Your task to perform on an android device: Find coffee shops on Maps Image 0: 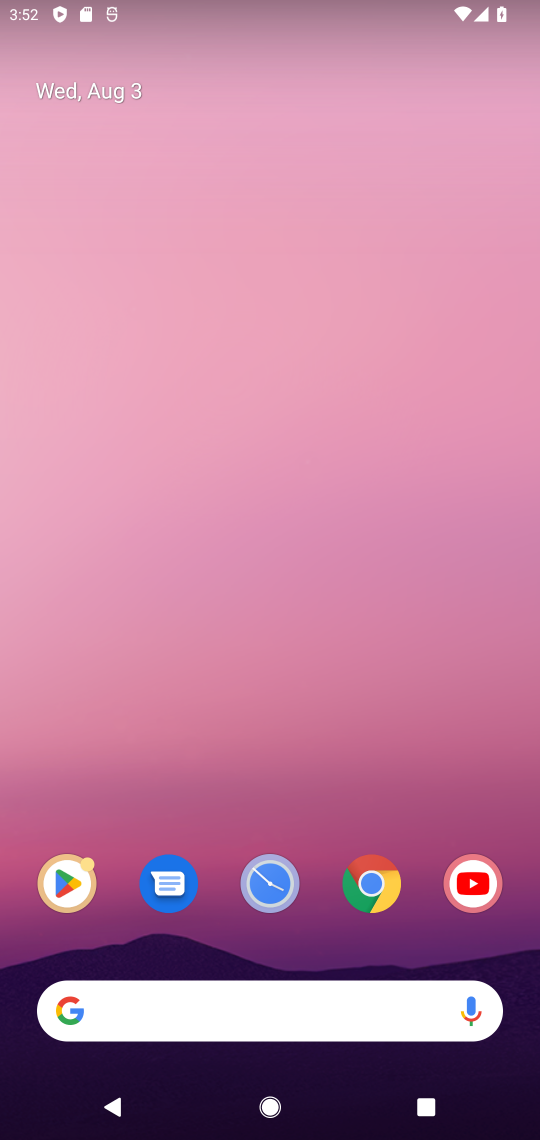
Step 0: drag from (258, 939) to (343, 21)
Your task to perform on an android device: Find coffee shops on Maps Image 1: 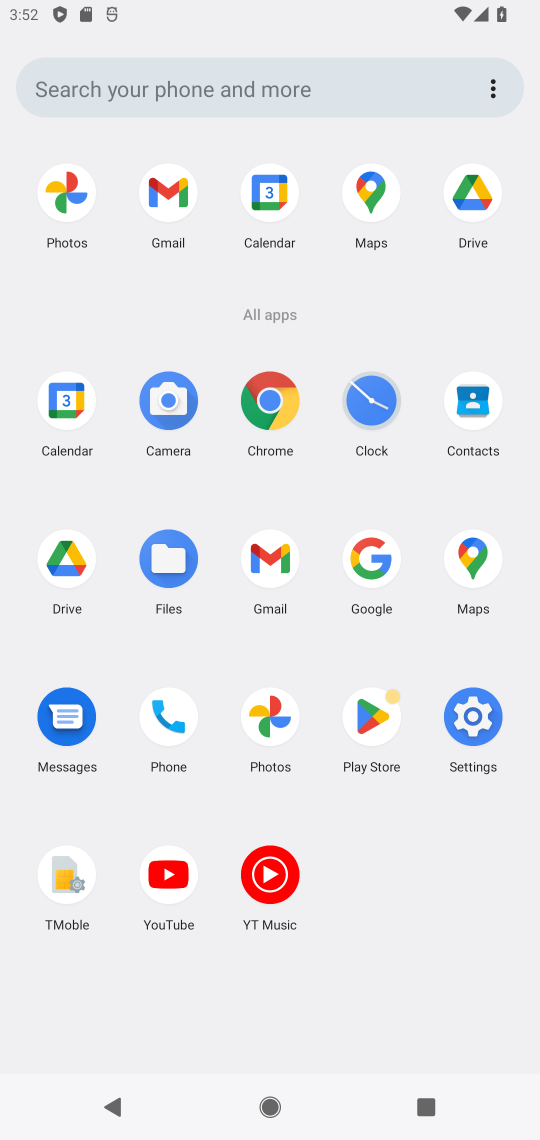
Step 1: click (471, 586)
Your task to perform on an android device: Find coffee shops on Maps Image 2: 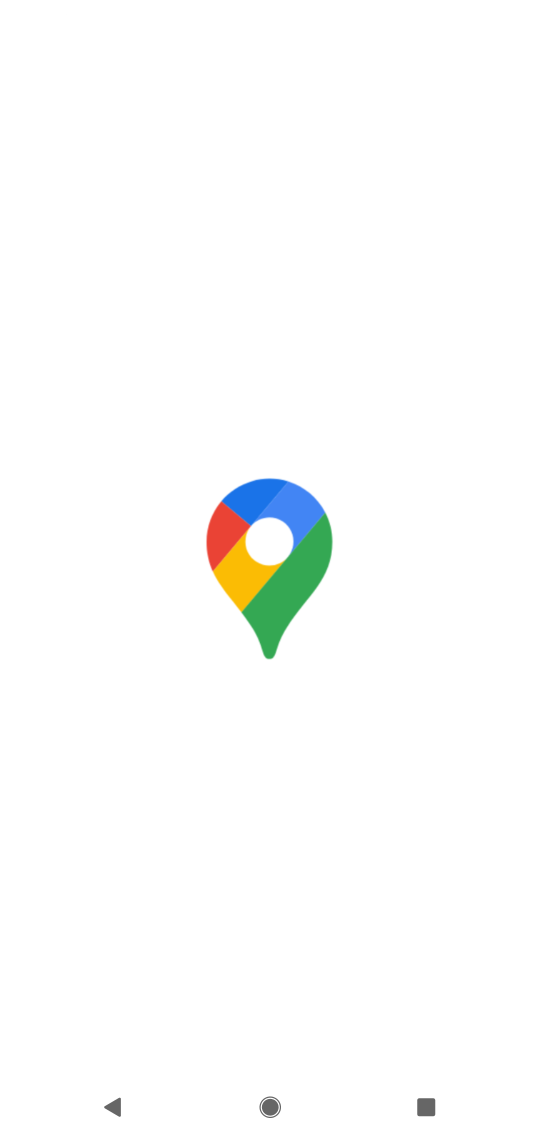
Step 2: click (301, 602)
Your task to perform on an android device: Find coffee shops on Maps Image 3: 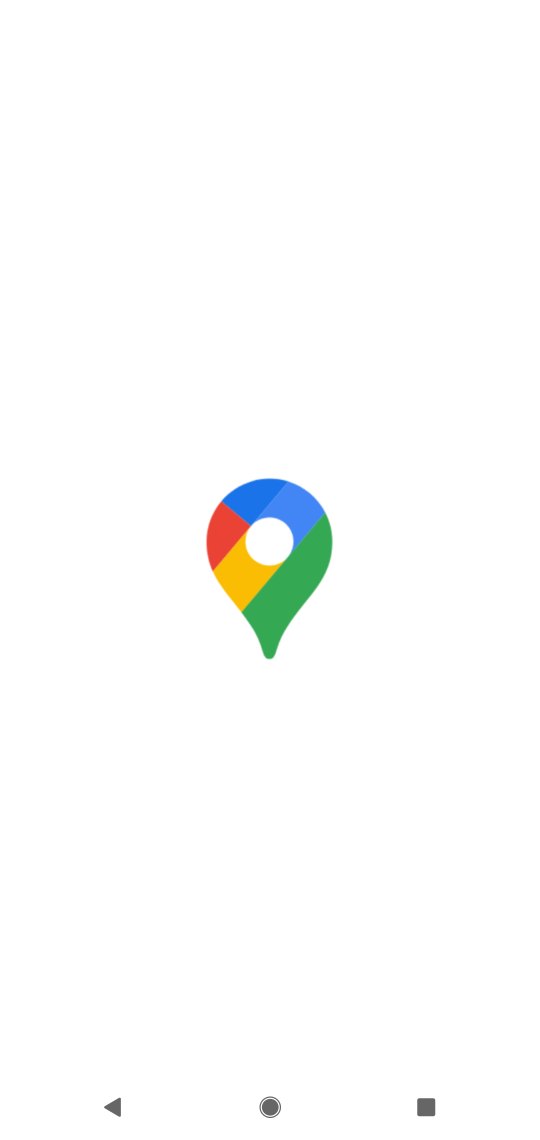
Step 3: click (241, 771)
Your task to perform on an android device: Find coffee shops on Maps Image 4: 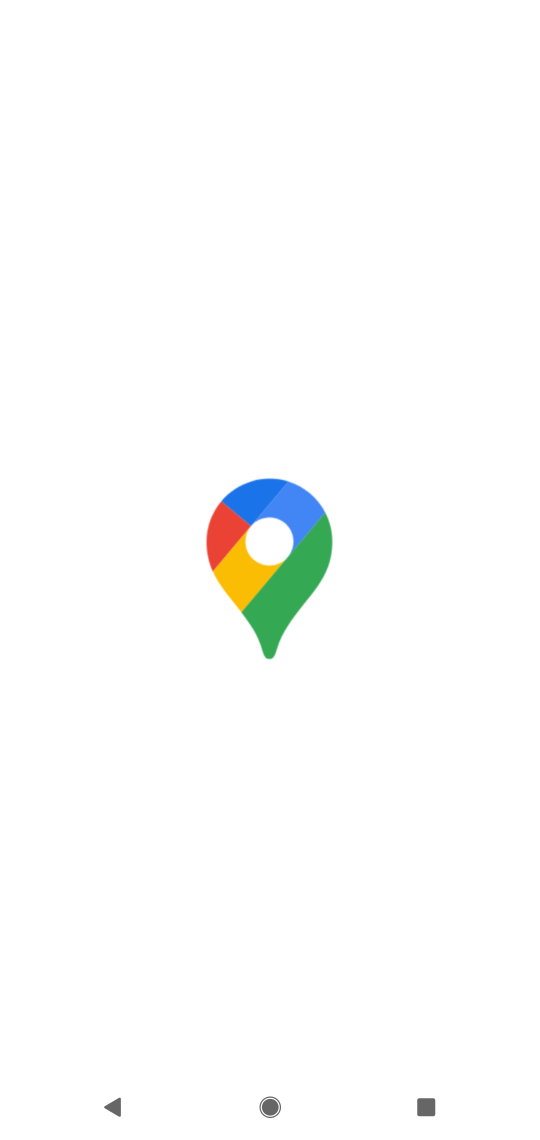
Step 4: task complete